Your task to perform on an android device: Clear the cart on costco. Add "bose quietcomfort 35" to the cart on costco, then select checkout. Image 0: 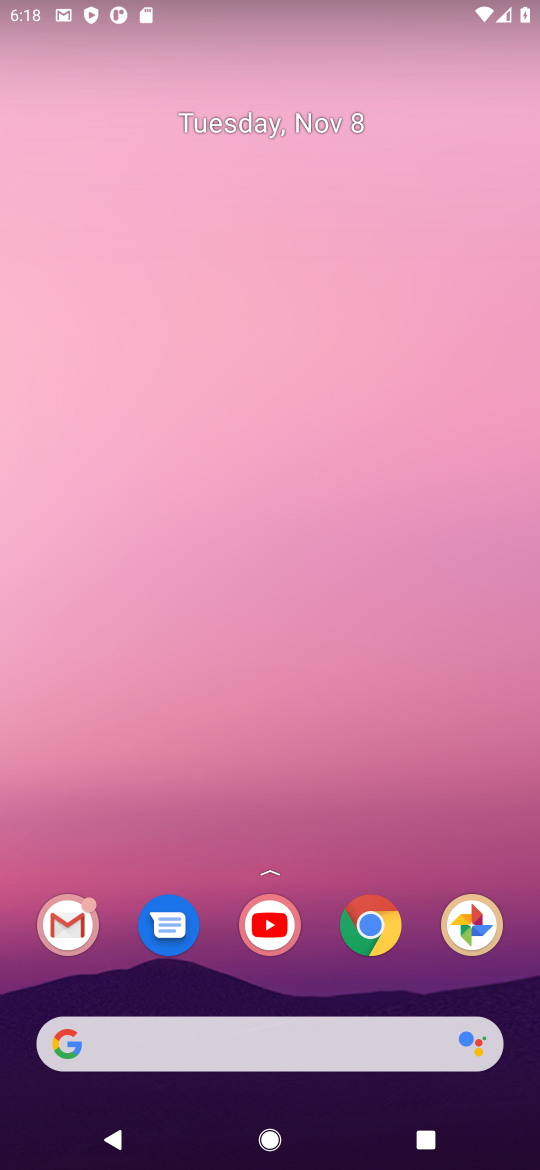
Step 0: press home button
Your task to perform on an android device: Clear the cart on costco. Add "bose quietcomfort 35" to the cart on costco, then select checkout. Image 1: 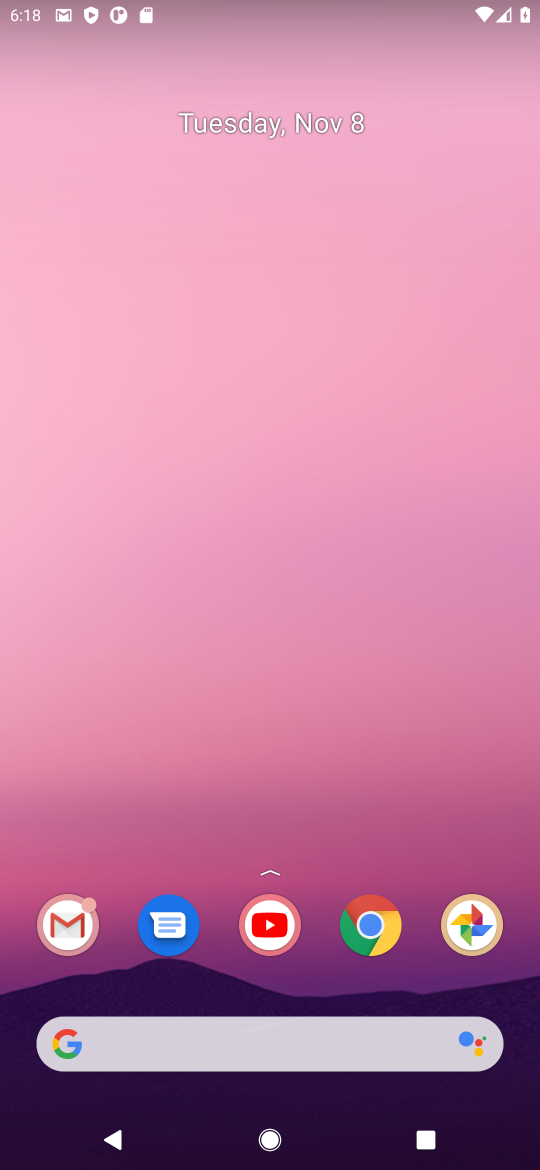
Step 1: click (376, 937)
Your task to perform on an android device: Clear the cart on costco. Add "bose quietcomfort 35" to the cart on costco, then select checkout. Image 2: 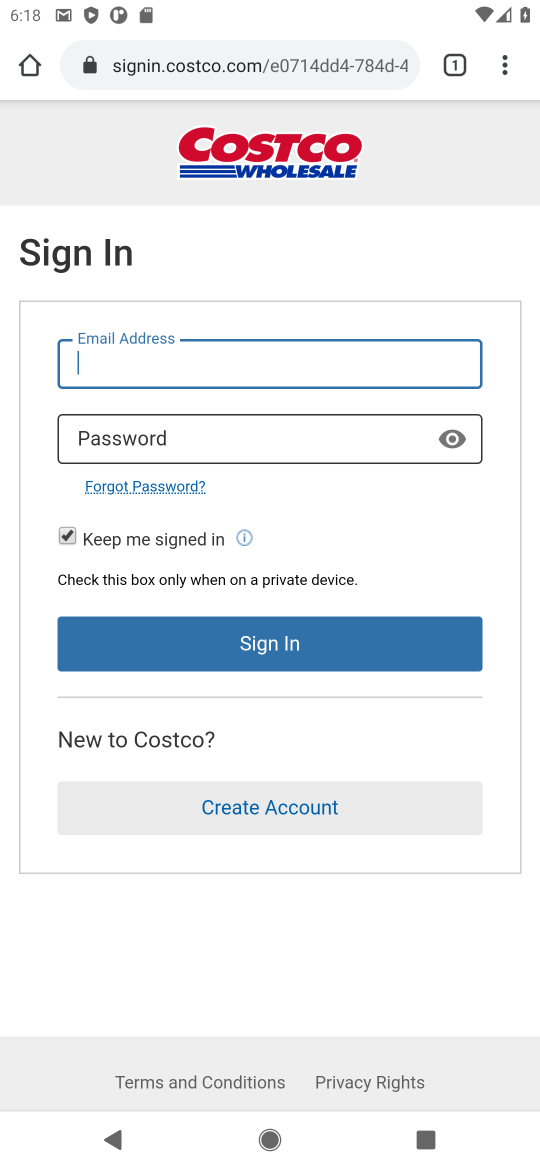
Step 2: click (319, 64)
Your task to perform on an android device: Clear the cart on costco. Add "bose quietcomfort 35" to the cart on costco, then select checkout. Image 3: 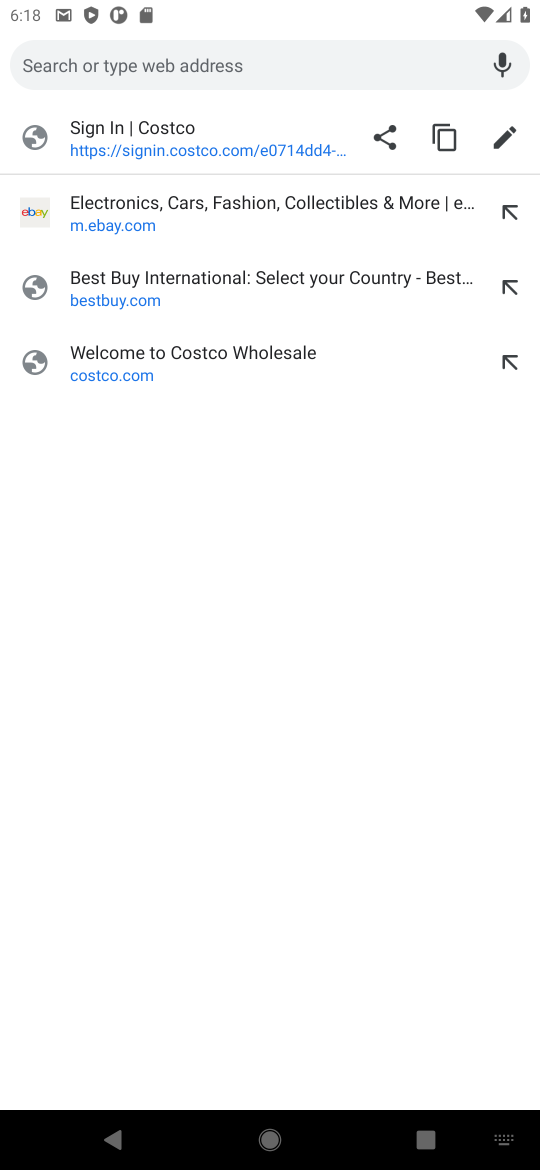
Step 3: type "costco"
Your task to perform on an android device: Clear the cart on costco. Add "bose quietcomfort 35" to the cart on costco, then select checkout. Image 4: 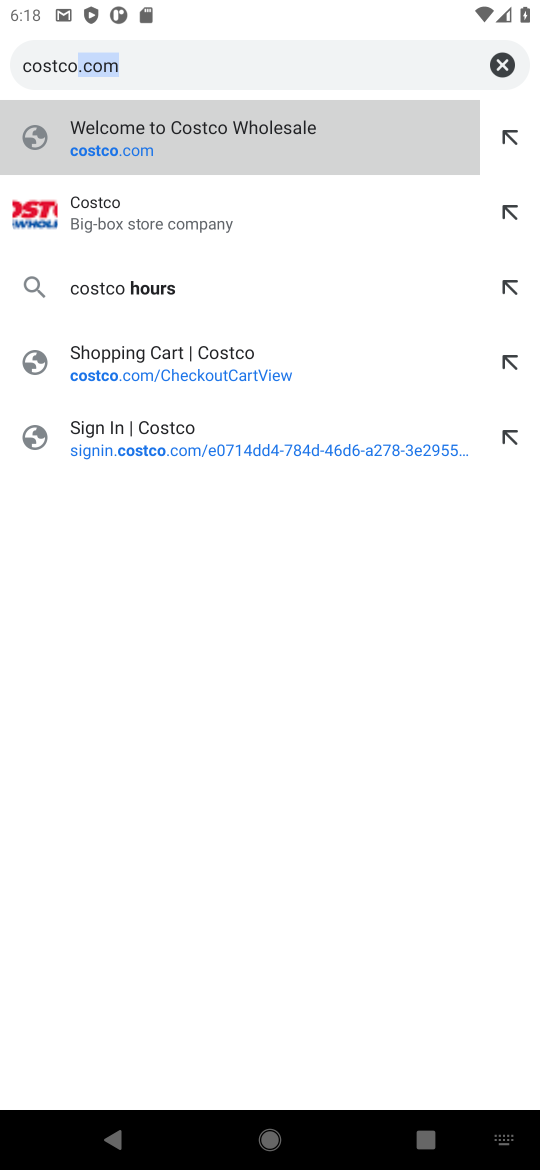
Step 4: click (233, 148)
Your task to perform on an android device: Clear the cart on costco. Add "bose quietcomfort 35" to the cart on costco, then select checkout. Image 5: 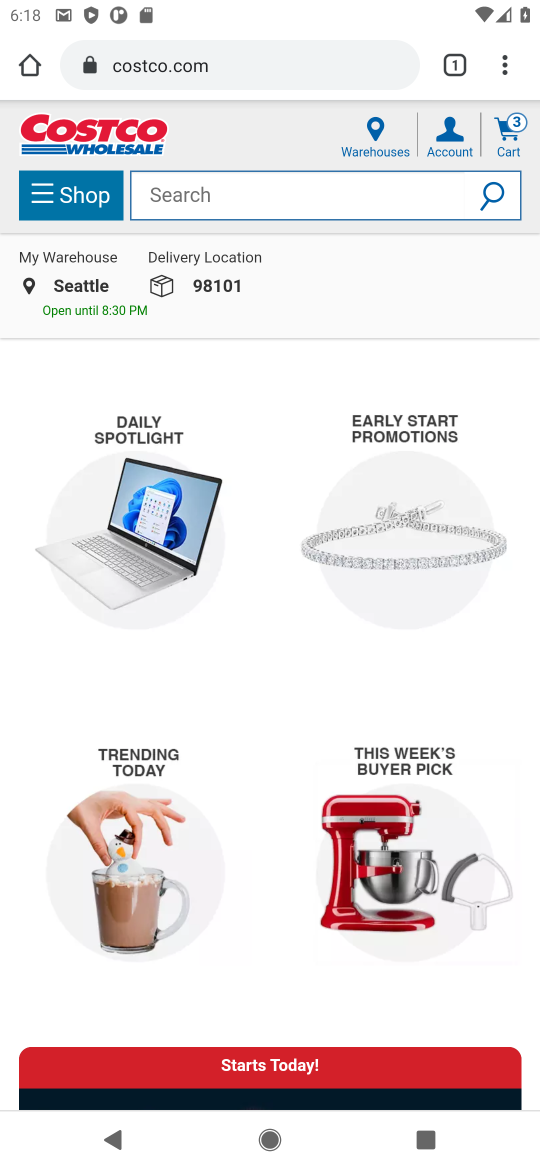
Step 5: click (273, 199)
Your task to perform on an android device: Clear the cart on costco. Add "bose quietcomfort 35" to the cart on costco, then select checkout. Image 6: 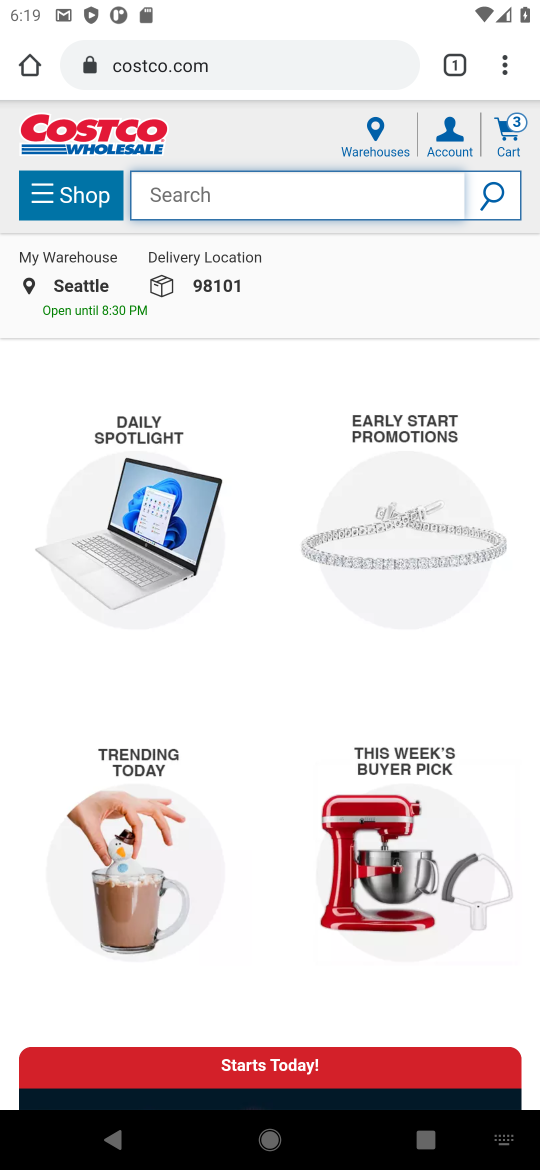
Step 6: type "bose quietcomfort 35"
Your task to perform on an android device: Clear the cart on costco. Add "bose quietcomfort 35" to the cart on costco, then select checkout. Image 7: 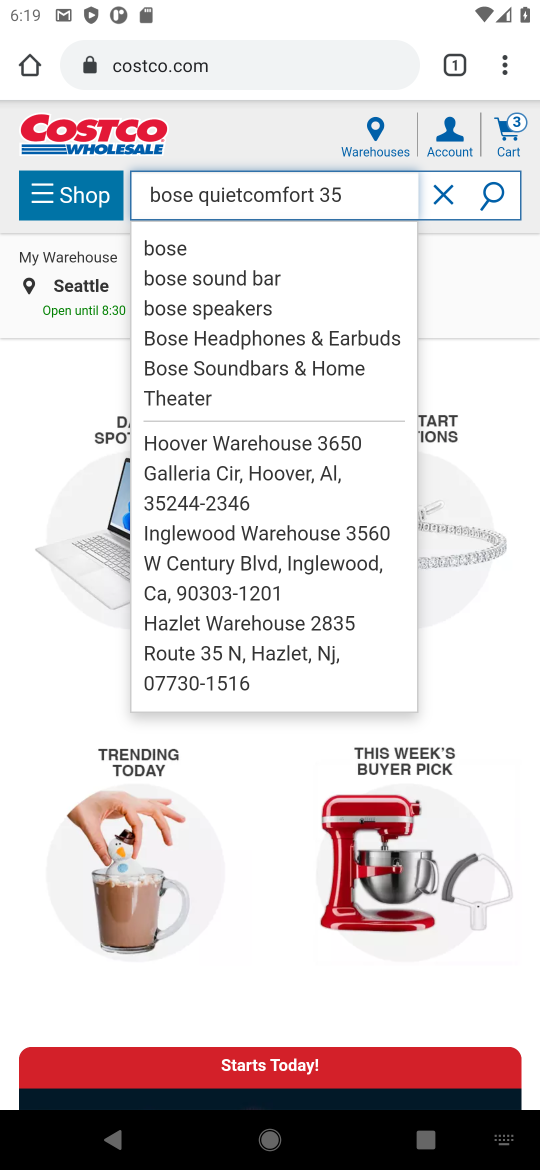
Step 7: click (498, 195)
Your task to perform on an android device: Clear the cart on costco. Add "bose quietcomfort 35" to the cart on costco, then select checkout. Image 8: 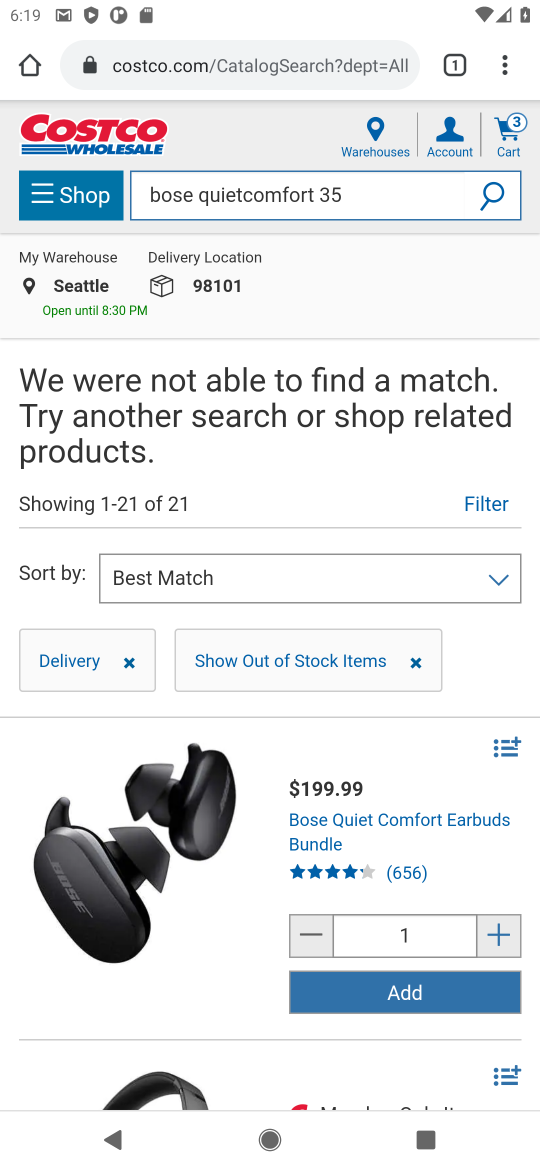
Step 8: task complete